Your task to perform on an android device: Search for flights from NYC to Sydney Image 0: 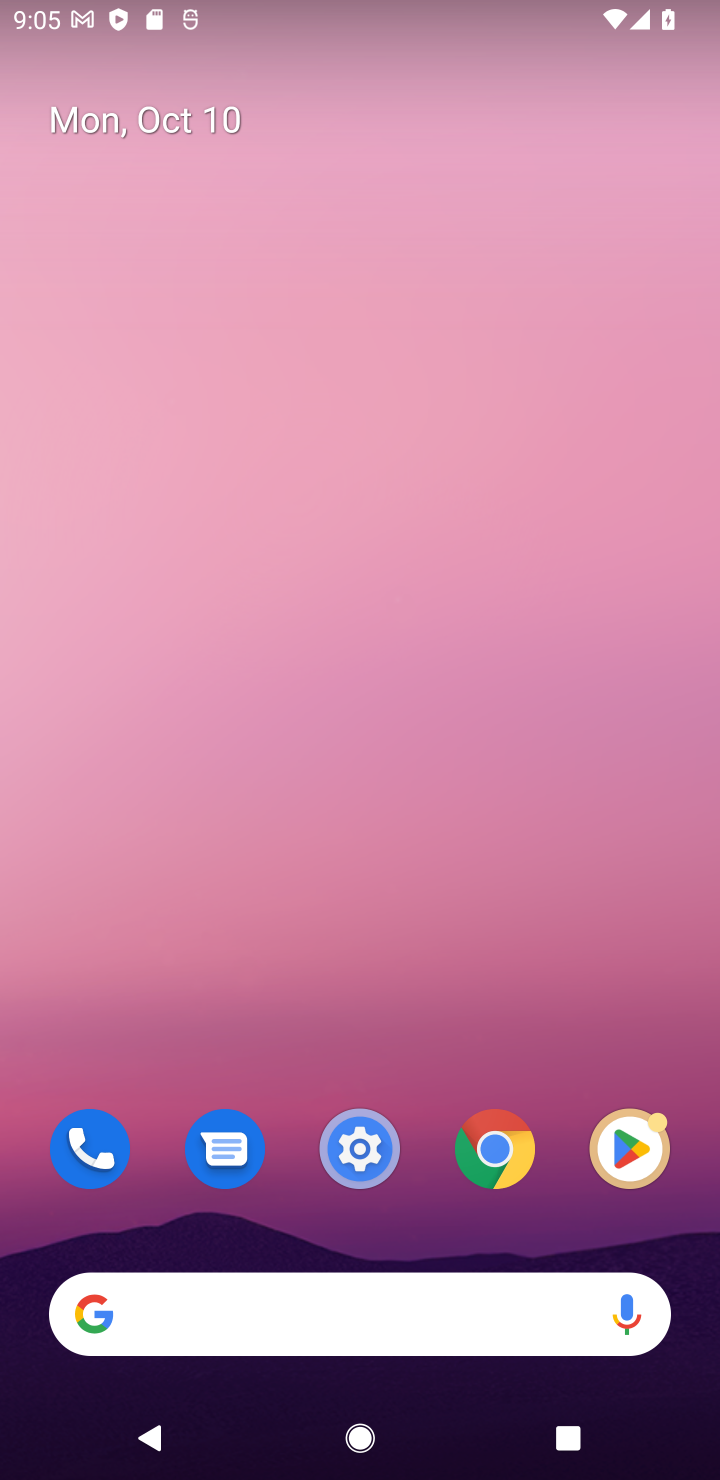
Step 0: click (454, 1286)
Your task to perform on an android device: Search for flights from NYC to Sydney Image 1: 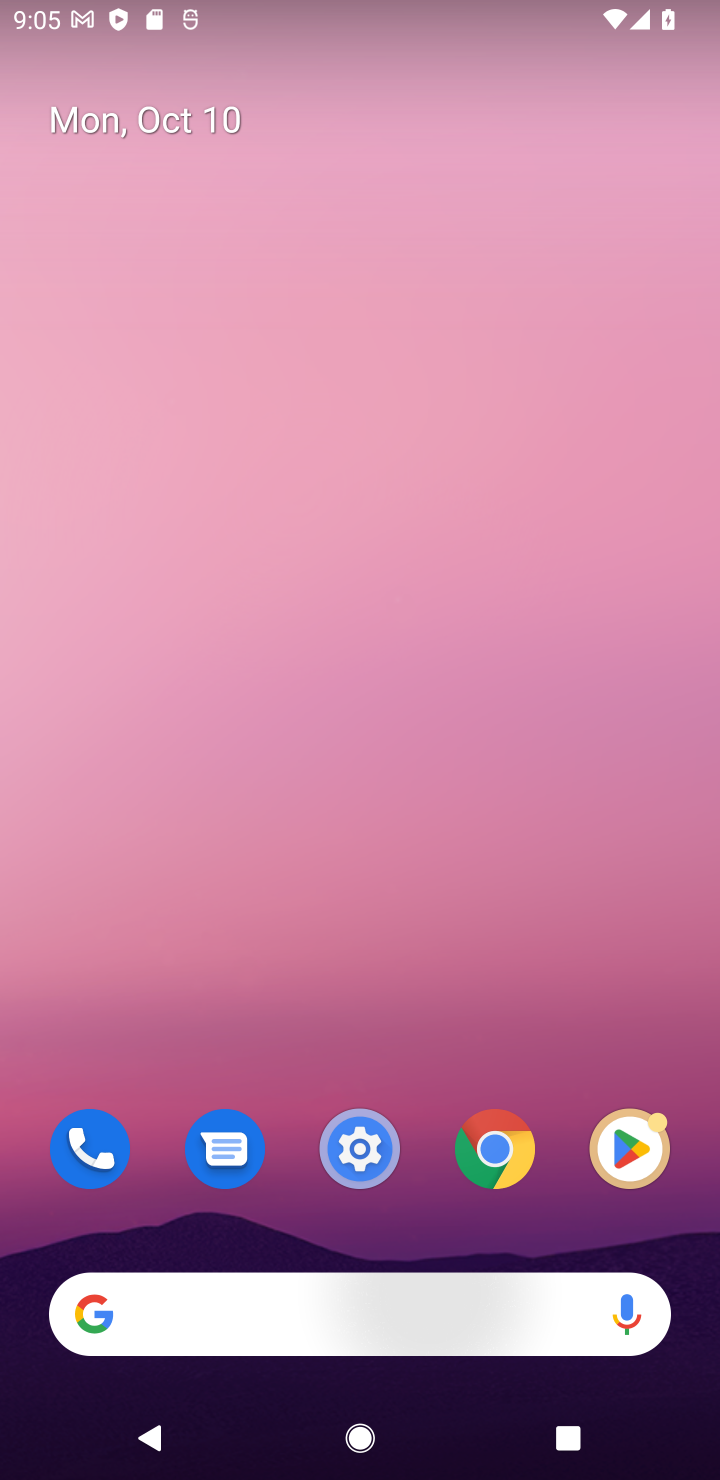
Step 1: type ""
Your task to perform on an android device: Search for flights from NYC to Sydney Image 2: 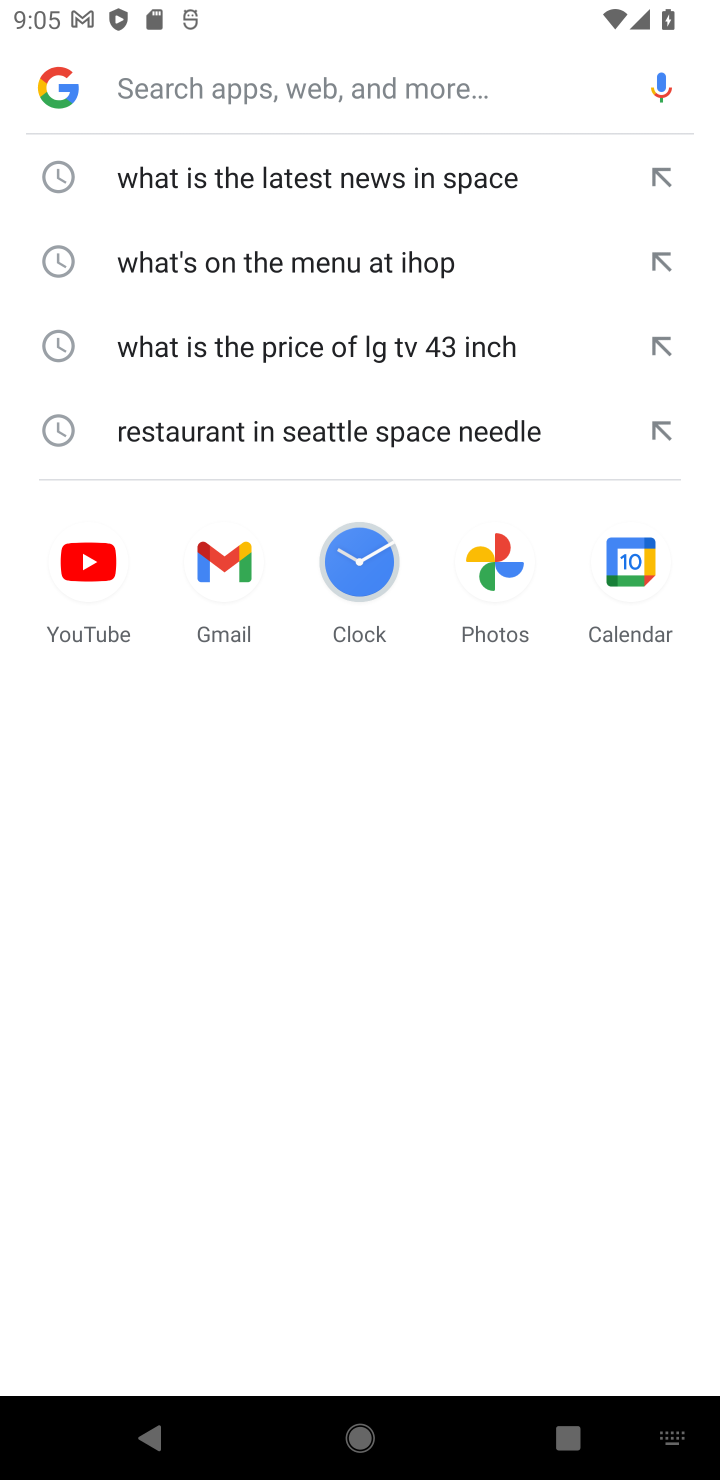
Step 2: type "Search for flights from NYC to Sydney"
Your task to perform on an android device: Search for flights from NYC to Sydney Image 3: 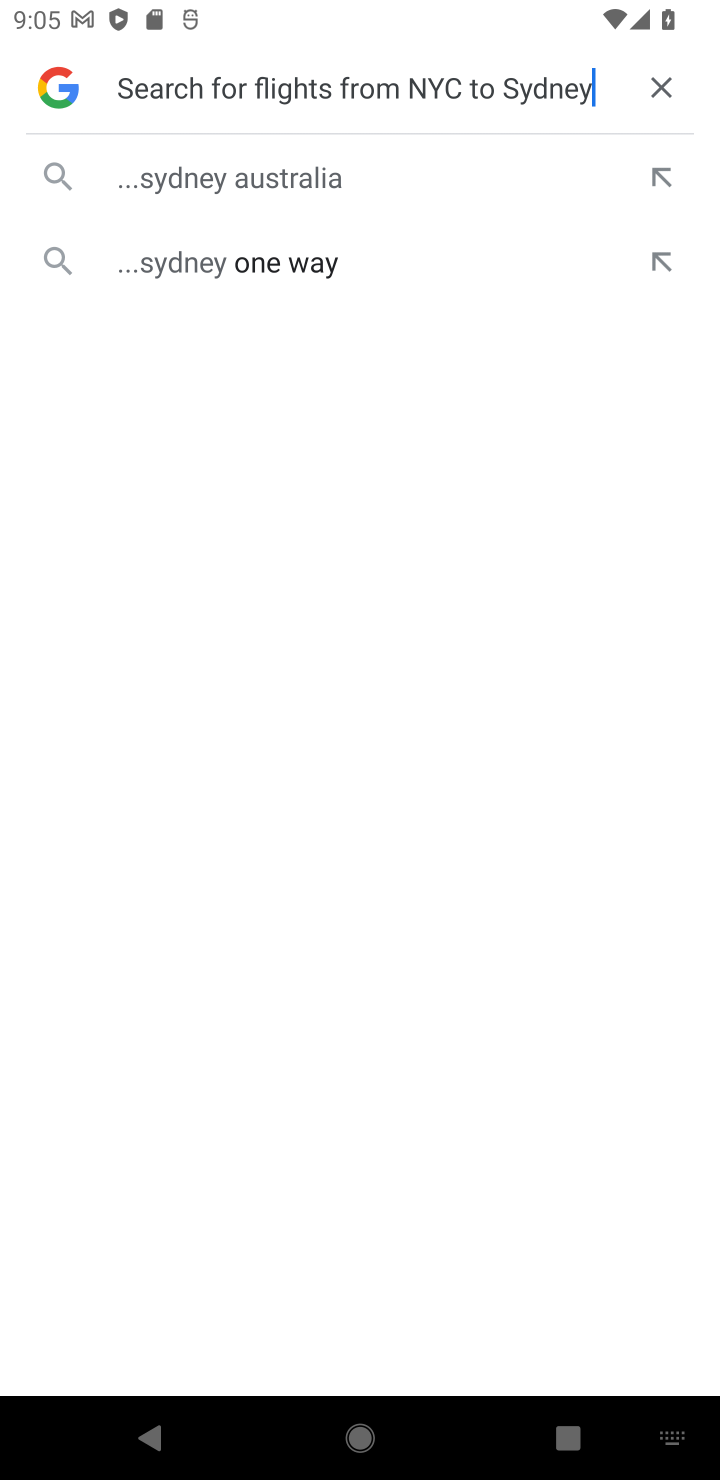
Step 3: click (433, 165)
Your task to perform on an android device: Search for flights from NYC to Sydney Image 4: 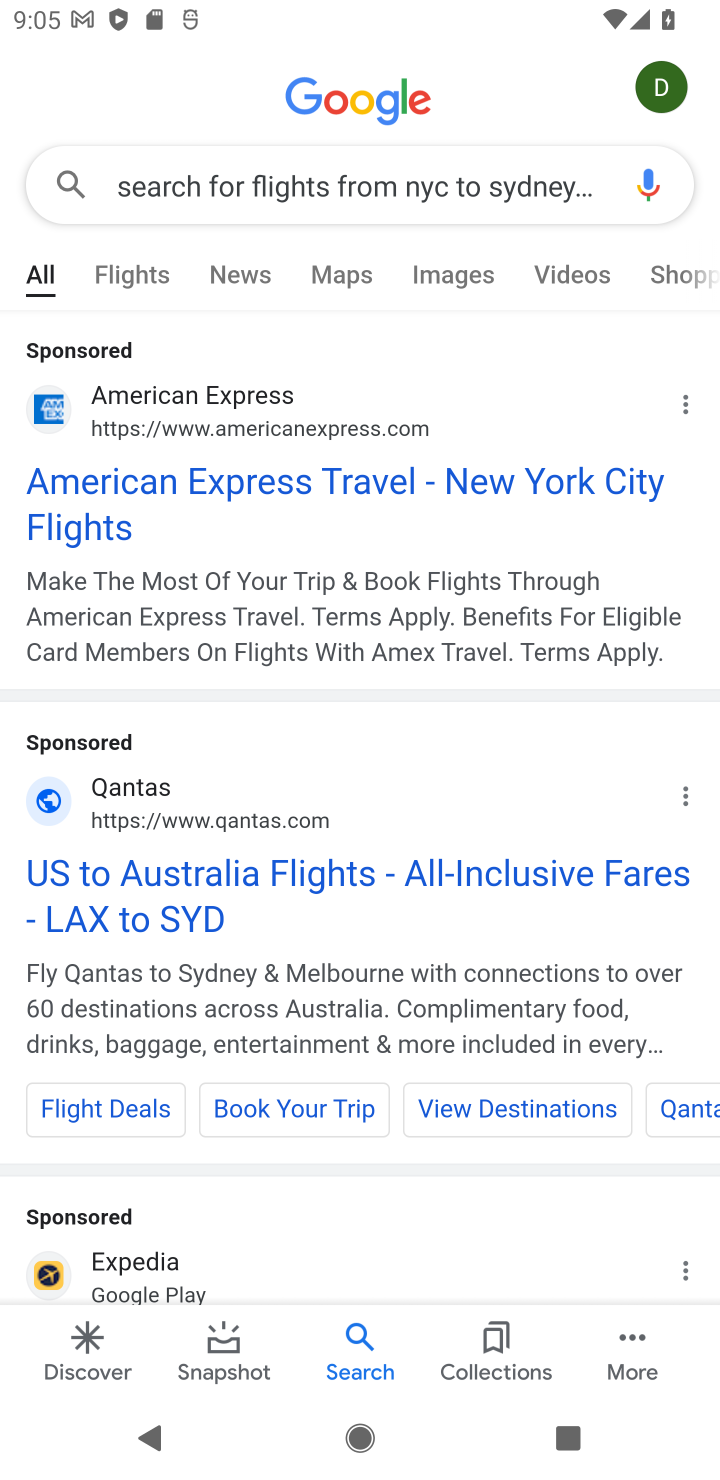
Step 4: task complete